Your task to perform on an android device: Check the weather Image 0: 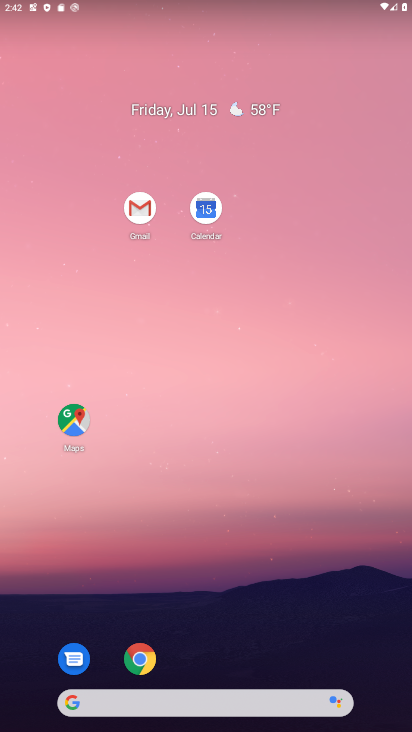
Step 0: click (153, 655)
Your task to perform on an android device: Check the weather Image 1: 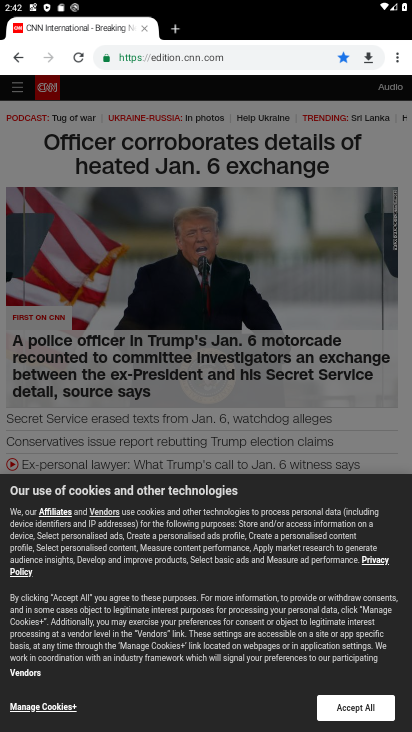
Step 1: click (169, 27)
Your task to perform on an android device: Check the weather Image 2: 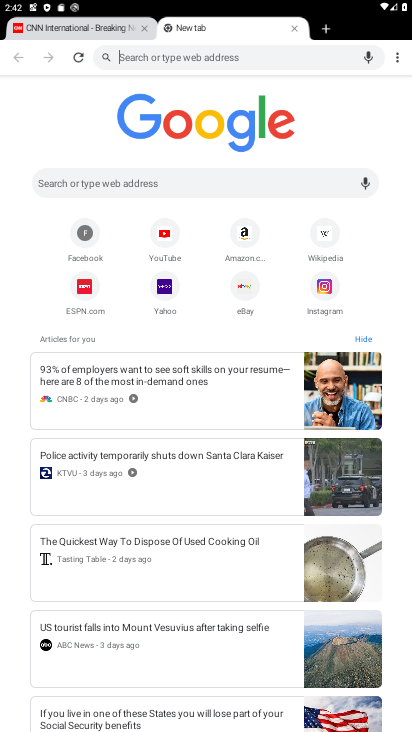
Step 2: click (197, 191)
Your task to perform on an android device: Check the weather Image 3: 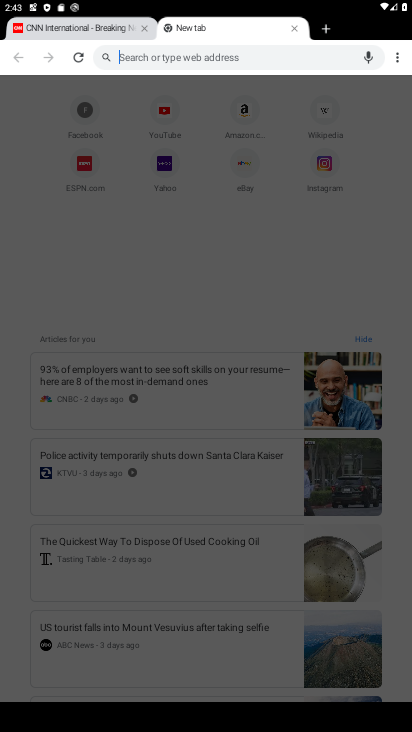
Step 3: type "weather"
Your task to perform on an android device: Check the weather Image 4: 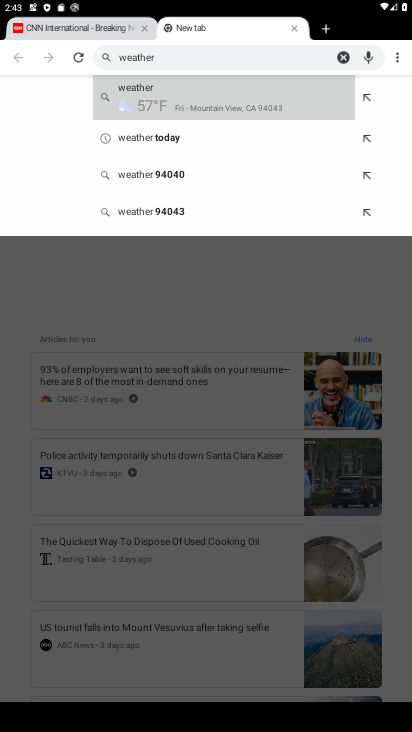
Step 4: click (236, 91)
Your task to perform on an android device: Check the weather Image 5: 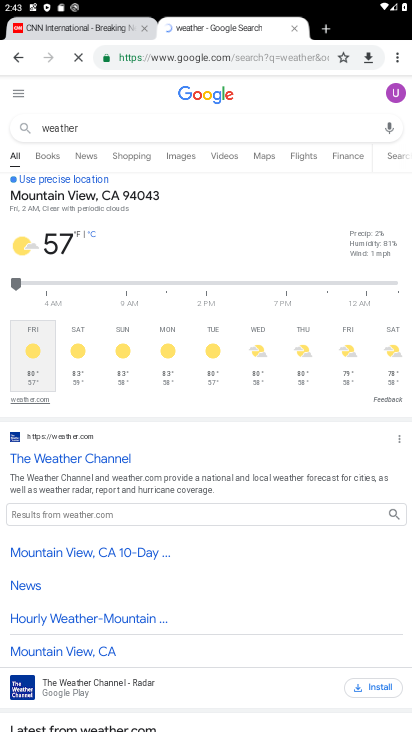
Step 5: task complete